Your task to perform on an android device: open chrome privacy settings Image 0: 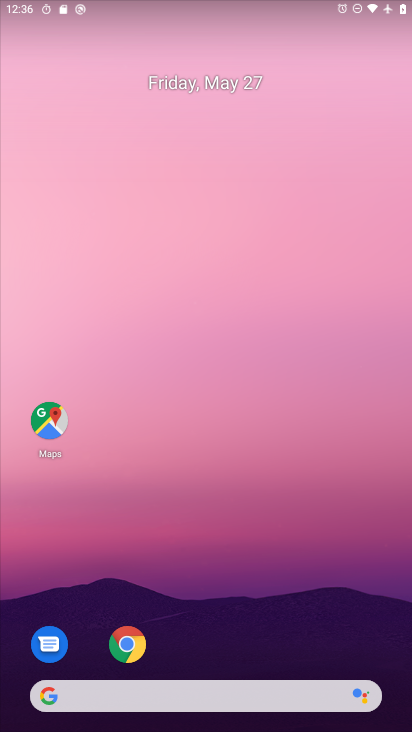
Step 0: click (142, 635)
Your task to perform on an android device: open chrome privacy settings Image 1: 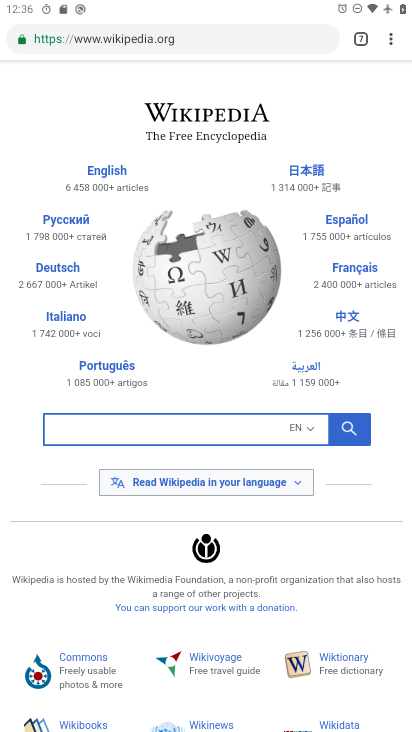
Step 1: drag from (383, 42) to (268, 458)
Your task to perform on an android device: open chrome privacy settings Image 2: 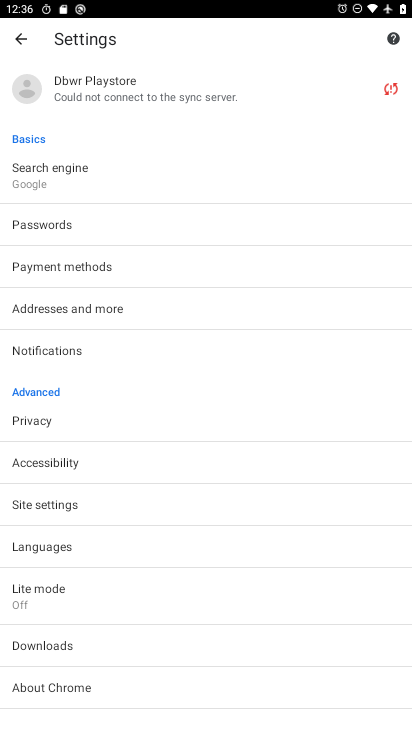
Step 2: click (75, 410)
Your task to perform on an android device: open chrome privacy settings Image 3: 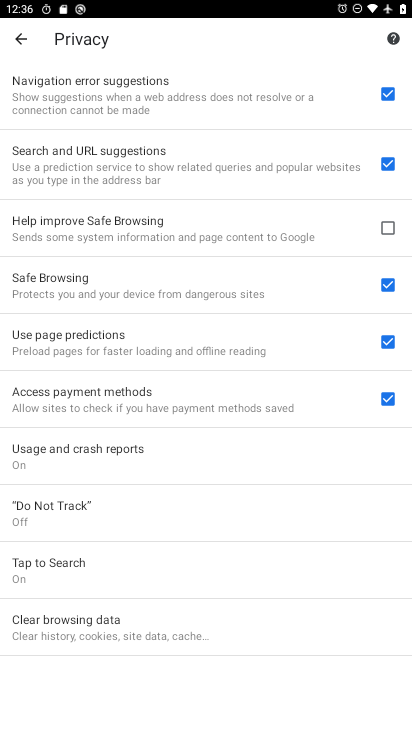
Step 3: task complete